Your task to perform on an android device: Is it going to rain tomorrow? Image 0: 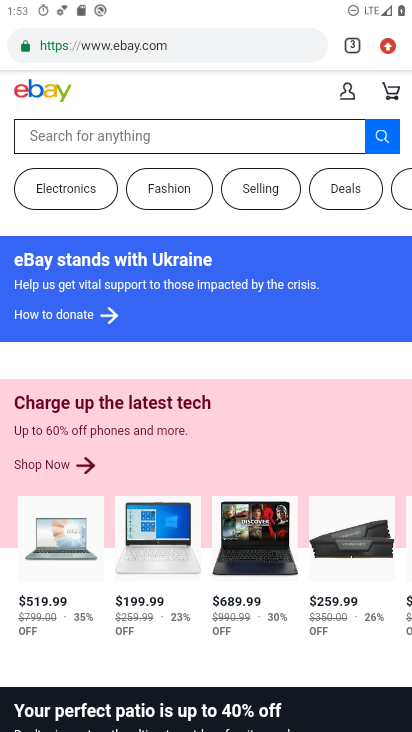
Step 0: drag from (202, 643) to (247, 332)
Your task to perform on an android device: Is it going to rain tomorrow? Image 1: 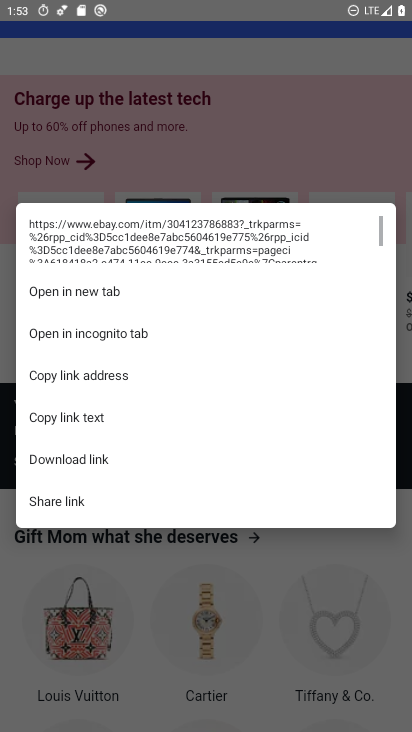
Step 1: drag from (194, 654) to (247, 331)
Your task to perform on an android device: Is it going to rain tomorrow? Image 2: 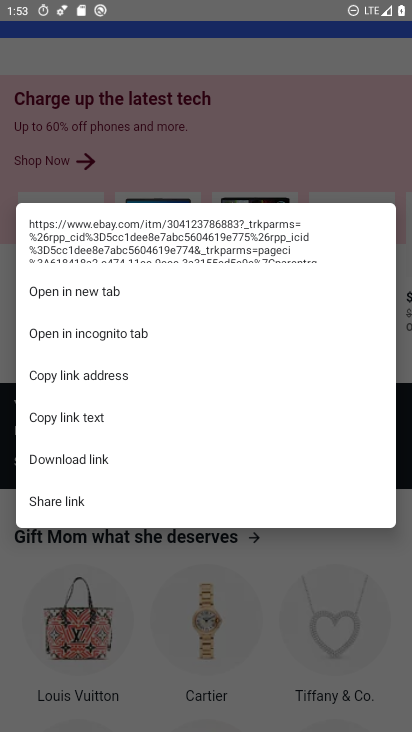
Step 2: drag from (186, 482) to (233, 238)
Your task to perform on an android device: Is it going to rain tomorrow? Image 3: 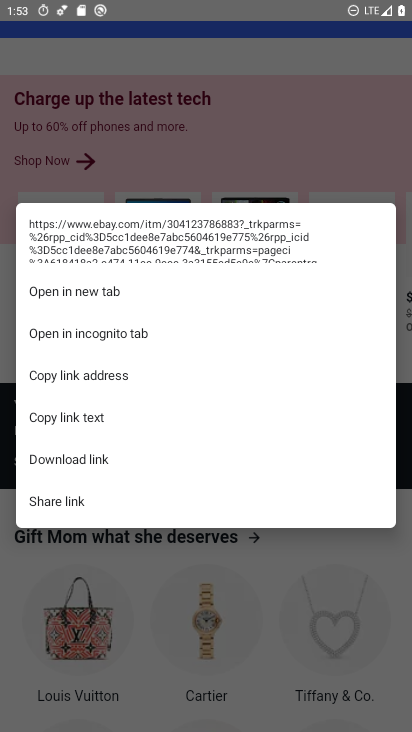
Step 3: drag from (164, 493) to (186, 218)
Your task to perform on an android device: Is it going to rain tomorrow? Image 4: 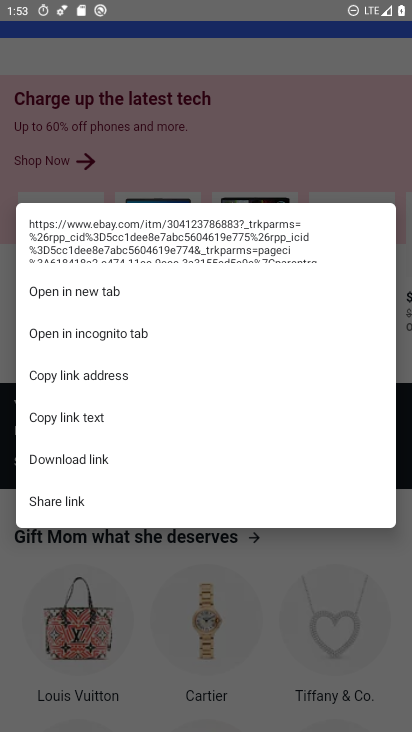
Step 4: drag from (180, 476) to (195, 236)
Your task to perform on an android device: Is it going to rain tomorrow? Image 5: 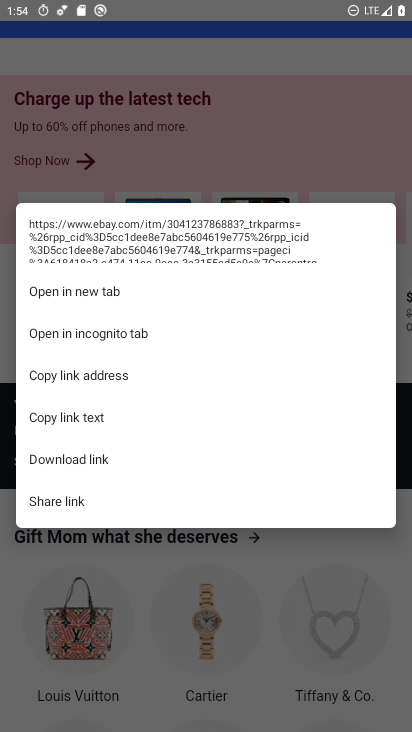
Step 5: drag from (181, 452) to (225, 233)
Your task to perform on an android device: Is it going to rain tomorrow? Image 6: 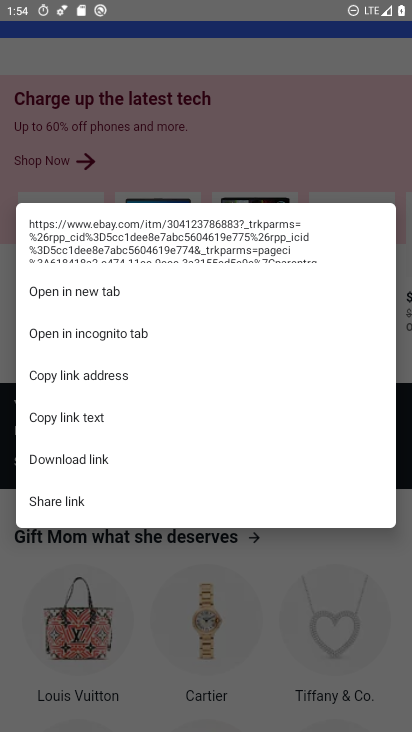
Step 6: drag from (194, 422) to (216, 219)
Your task to perform on an android device: Is it going to rain tomorrow? Image 7: 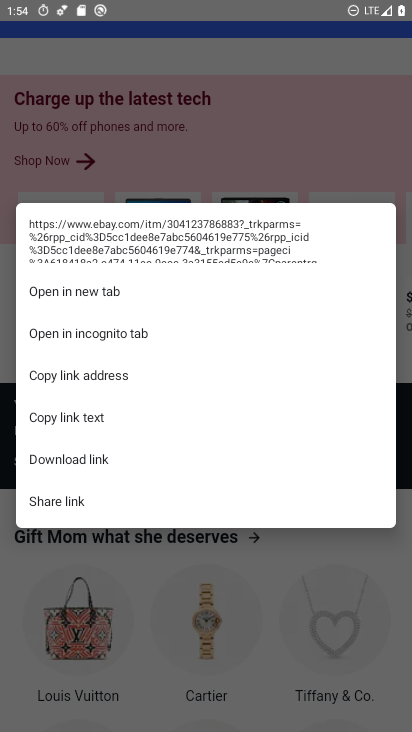
Step 7: press home button
Your task to perform on an android device: Is it going to rain tomorrow? Image 8: 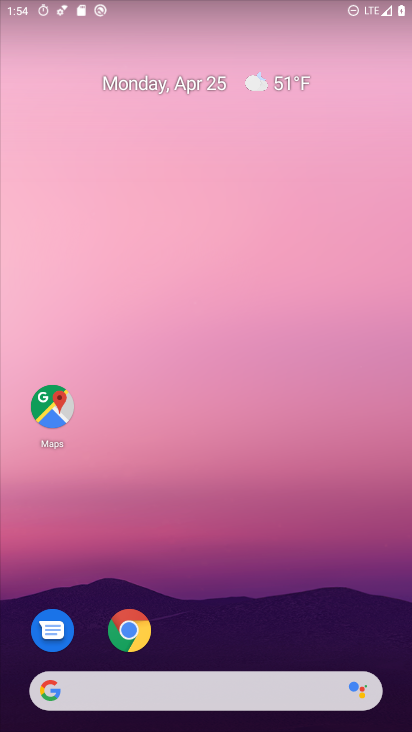
Step 8: drag from (227, 590) to (280, 248)
Your task to perform on an android device: Is it going to rain tomorrow? Image 9: 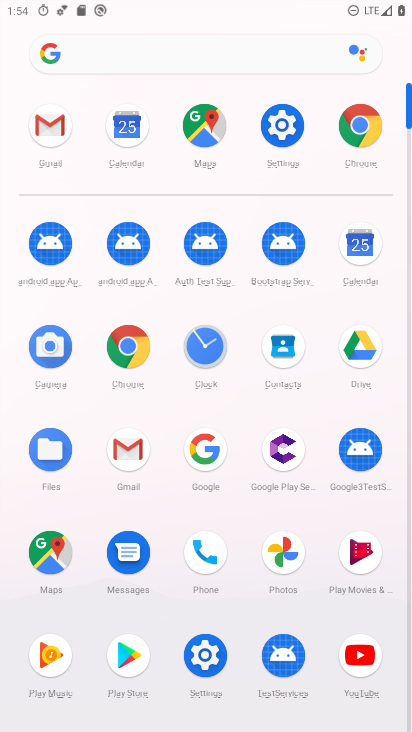
Step 9: click (186, 57)
Your task to perform on an android device: Is it going to rain tomorrow? Image 10: 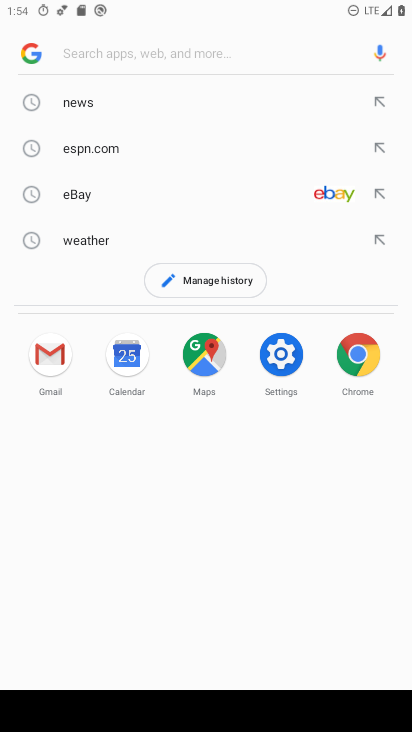
Step 10: type "rain tomorrow"
Your task to perform on an android device: Is it going to rain tomorrow? Image 11: 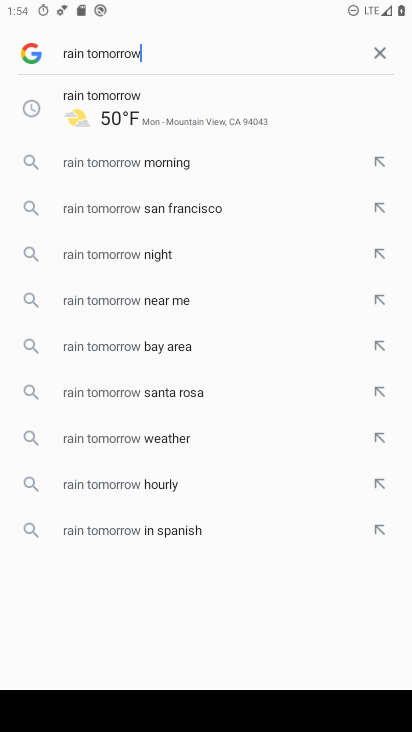
Step 11: click (149, 105)
Your task to perform on an android device: Is it going to rain tomorrow? Image 12: 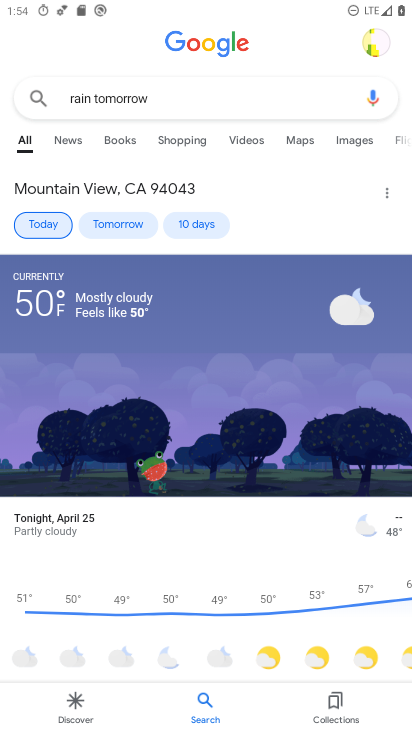
Step 12: task complete